Your task to perform on an android device: set the stopwatch Image 0: 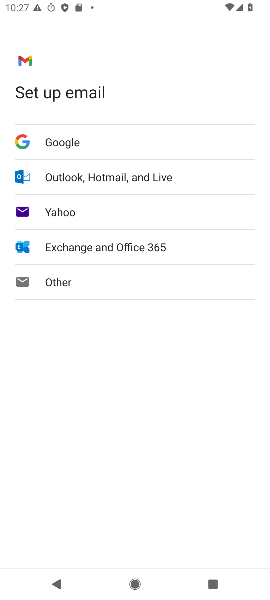
Step 0: press home button
Your task to perform on an android device: set the stopwatch Image 1: 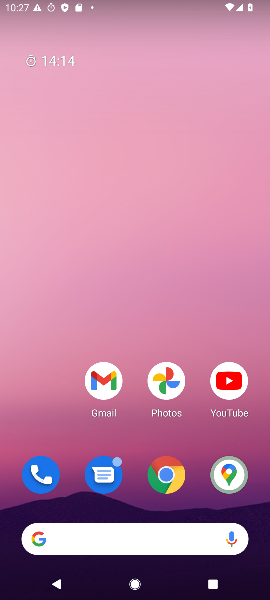
Step 1: drag from (120, 476) to (167, 9)
Your task to perform on an android device: set the stopwatch Image 2: 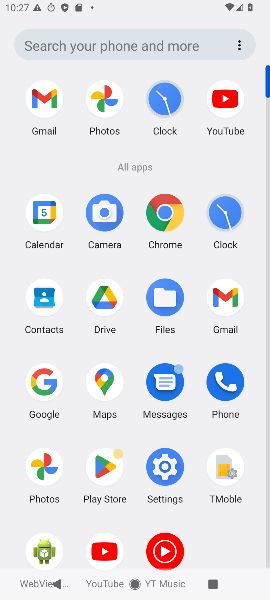
Step 2: press home button
Your task to perform on an android device: set the stopwatch Image 3: 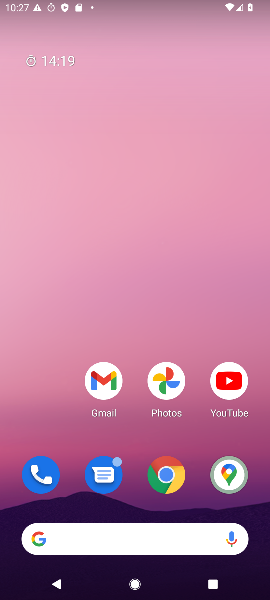
Step 3: drag from (122, 506) to (164, 76)
Your task to perform on an android device: set the stopwatch Image 4: 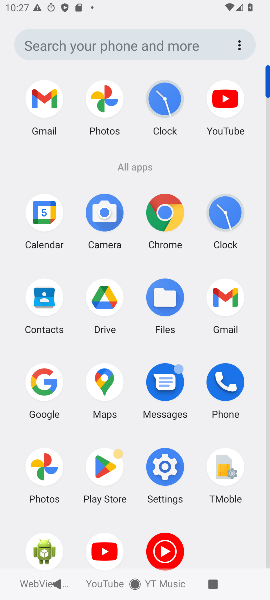
Step 4: click (227, 218)
Your task to perform on an android device: set the stopwatch Image 5: 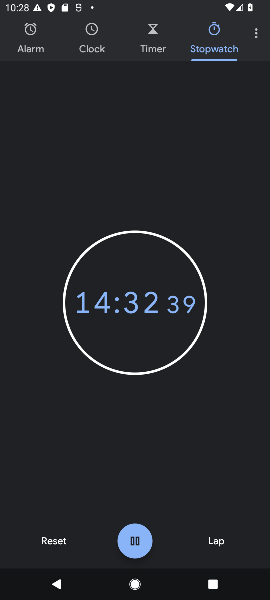
Step 5: click (60, 543)
Your task to perform on an android device: set the stopwatch Image 6: 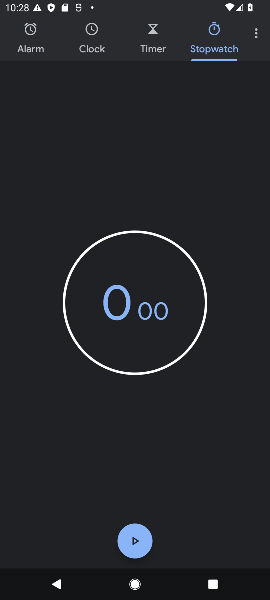
Step 6: click (127, 538)
Your task to perform on an android device: set the stopwatch Image 7: 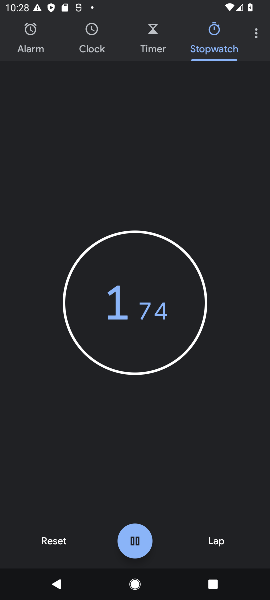
Step 7: task complete